Your task to perform on an android device: Do I have any events this weekend? Image 0: 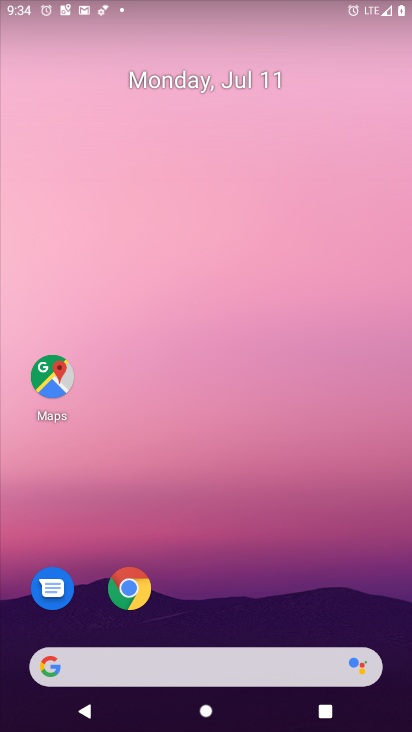
Step 0: drag from (187, 661) to (273, 132)
Your task to perform on an android device: Do I have any events this weekend? Image 1: 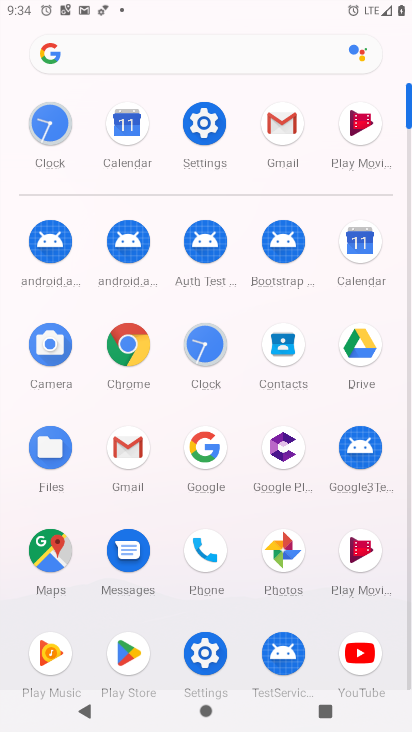
Step 1: click (351, 252)
Your task to perform on an android device: Do I have any events this weekend? Image 2: 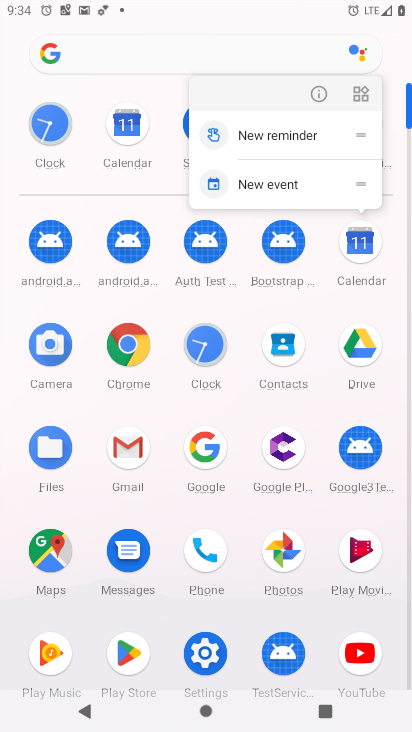
Step 2: click (352, 251)
Your task to perform on an android device: Do I have any events this weekend? Image 3: 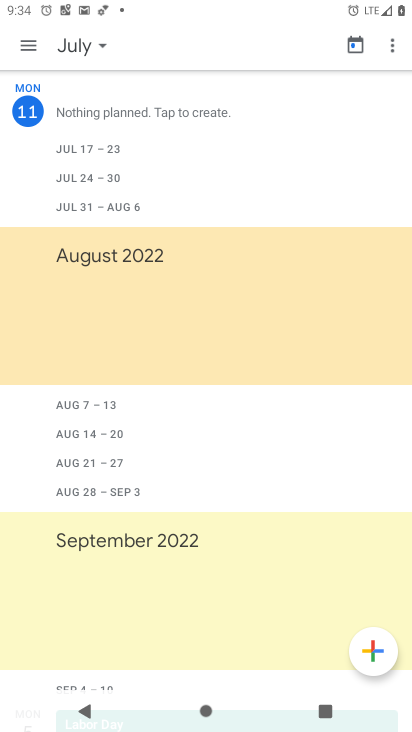
Step 3: click (85, 47)
Your task to perform on an android device: Do I have any events this weekend? Image 4: 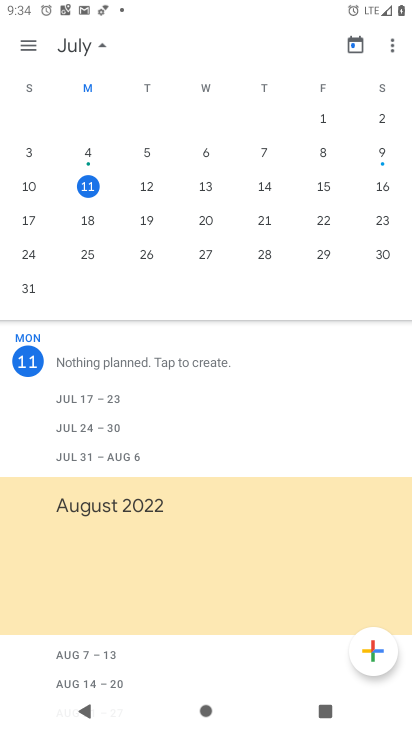
Step 4: click (382, 187)
Your task to perform on an android device: Do I have any events this weekend? Image 5: 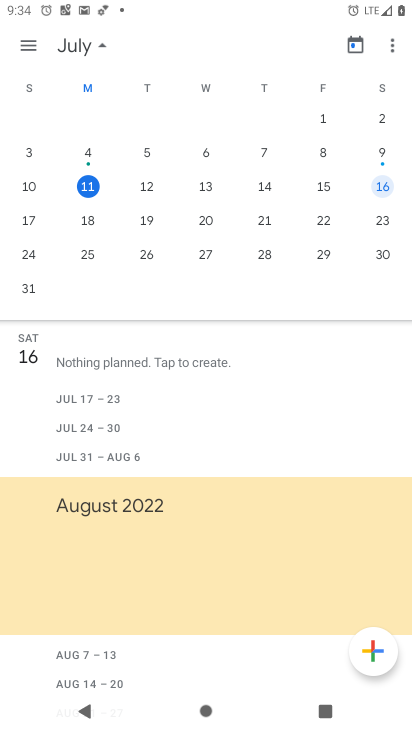
Step 5: click (30, 46)
Your task to perform on an android device: Do I have any events this weekend? Image 6: 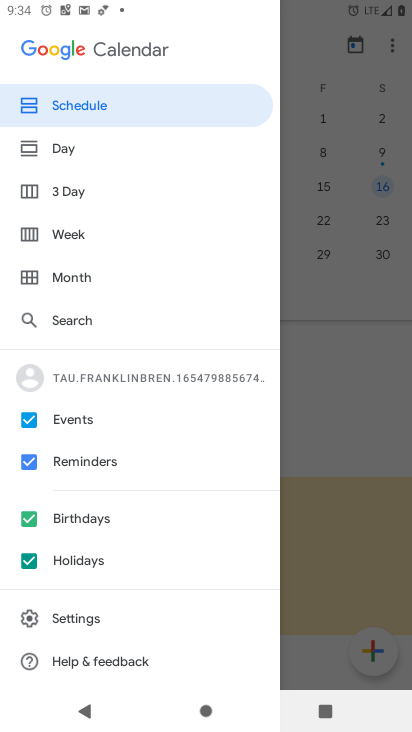
Step 6: click (85, 230)
Your task to perform on an android device: Do I have any events this weekend? Image 7: 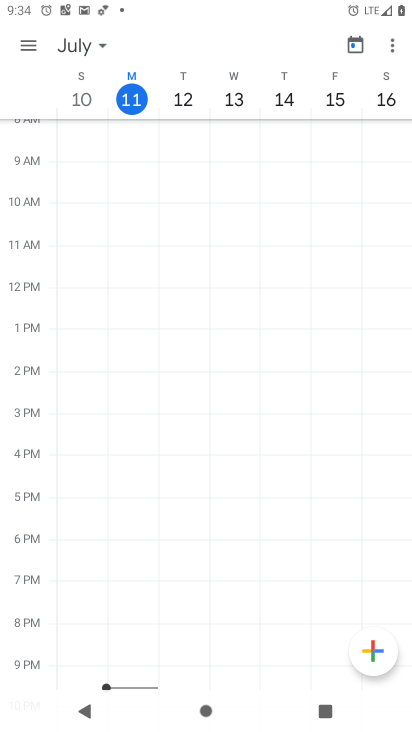
Step 7: click (30, 47)
Your task to perform on an android device: Do I have any events this weekend? Image 8: 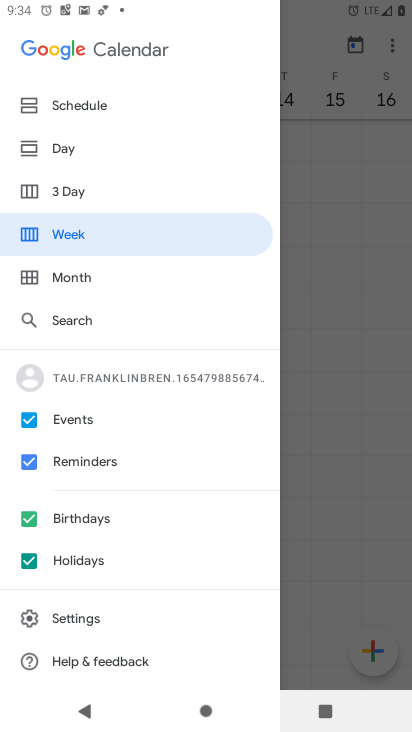
Step 8: click (316, 54)
Your task to perform on an android device: Do I have any events this weekend? Image 9: 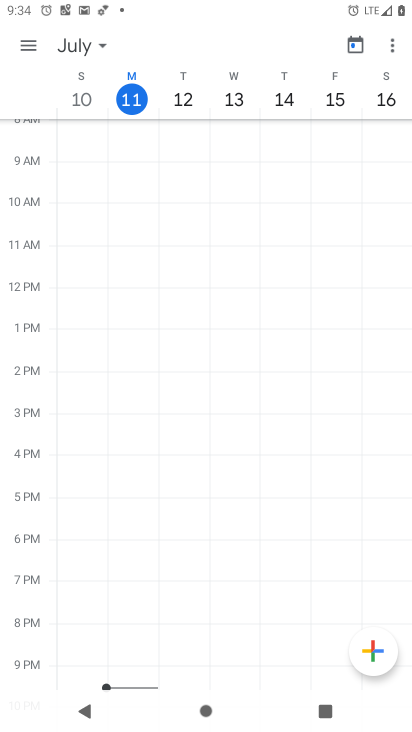
Step 9: click (75, 39)
Your task to perform on an android device: Do I have any events this weekend? Image 10: 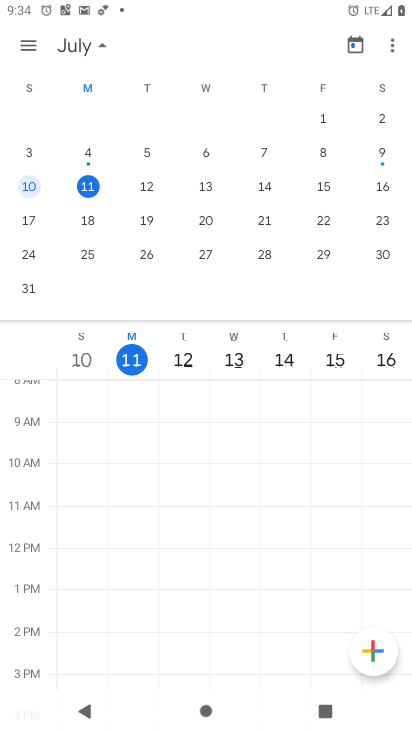
Step 10: click (378, 188)
Your task to perform on an android device: Do I have any events this weekend? Image 11: 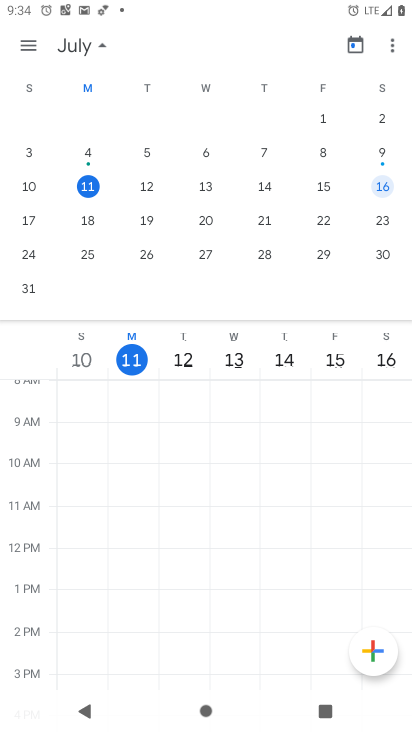
Step 11: click (31, 41)
Your task to perform on an android device: Do I have any events this weekend? Image 12: 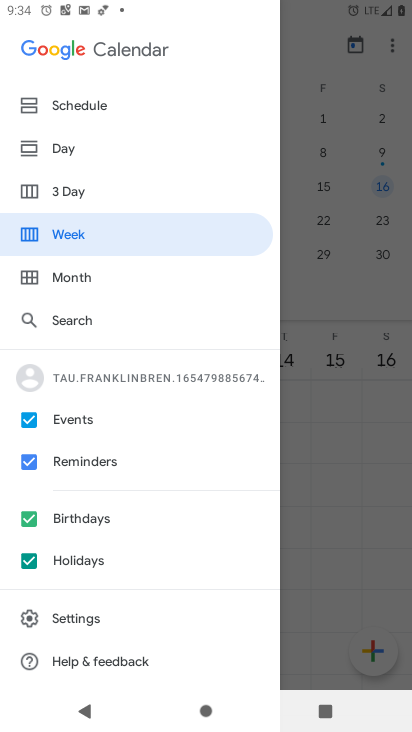
Step 12: click (75, 105)
Your task to perform on an android device: Do I have any events this weekend? Image 13: 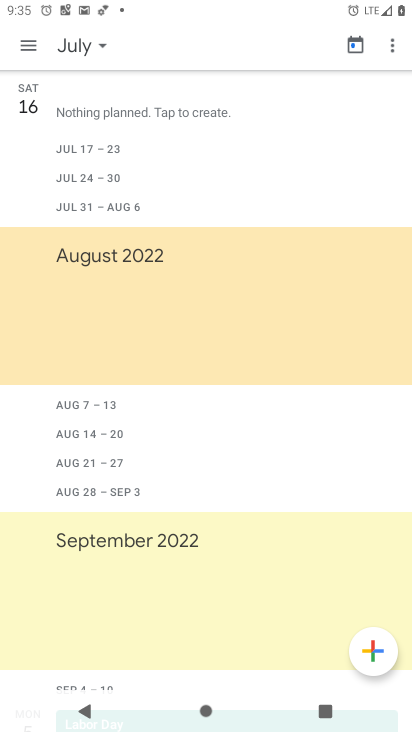
Step 13: task complete